Your task to perform on an android device: toggle notification dots Image 0: 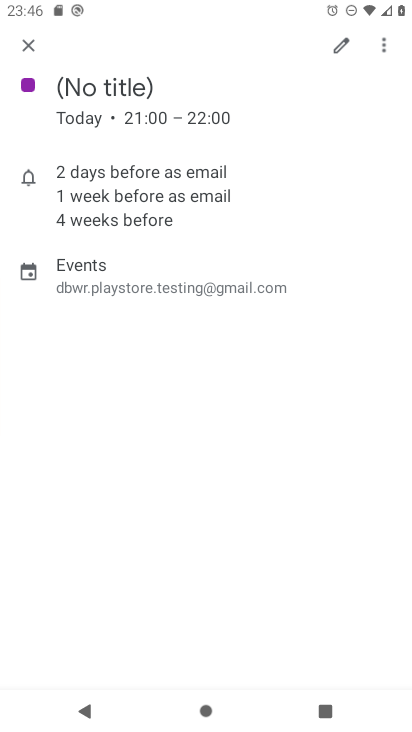
Step 0: press home button
Your task to perform on an android device: toggle notification dots Image 1: 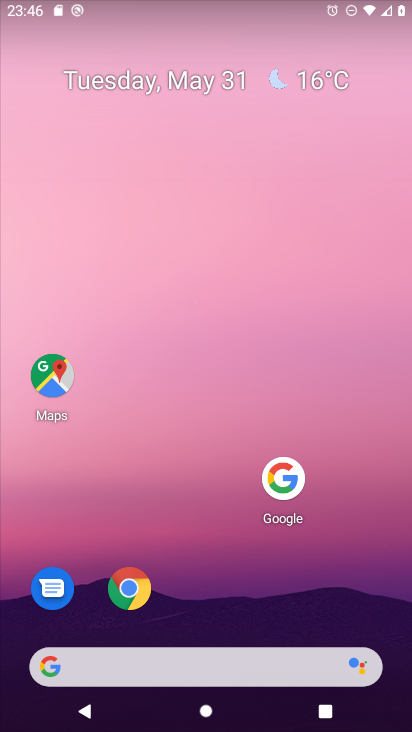
Step 1: drag from (194, 662) to (261, 120)
Your task to perform on an android device: toggle notification dots Image 2: 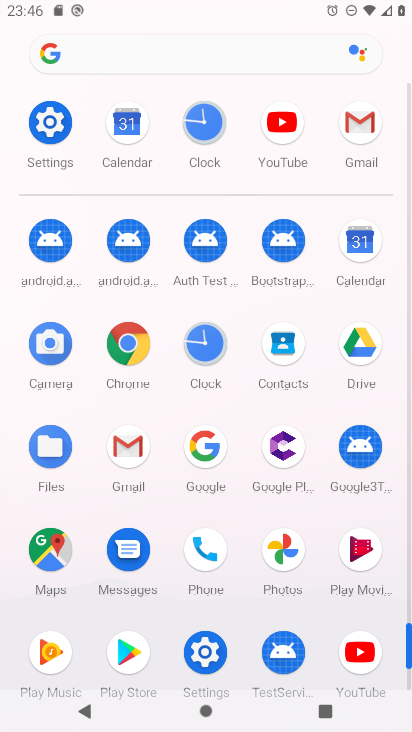
Step 2: click (42, 127)
Your task to perform on an android device: toggle notification dots Image 3: 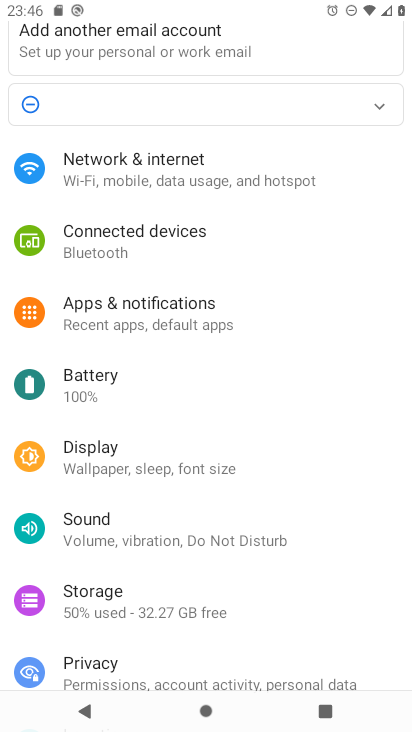
Step 3: click (158, 307)
Your task to perform on an android device: toggle notification dots Image 4: 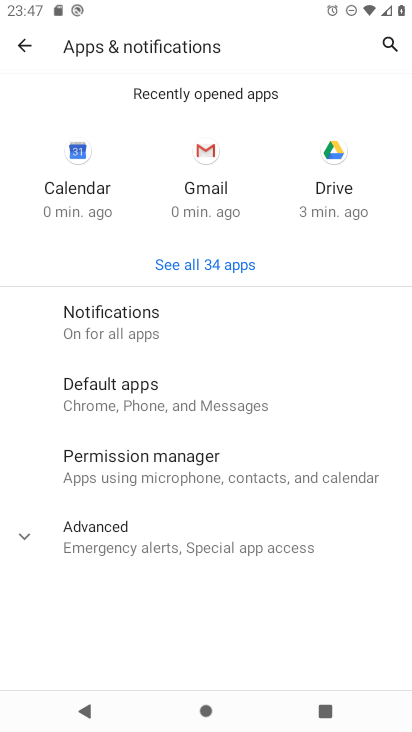
Step 4: click (132, 321)
Your task to perform on an android device: toggle notification dots Image 5: 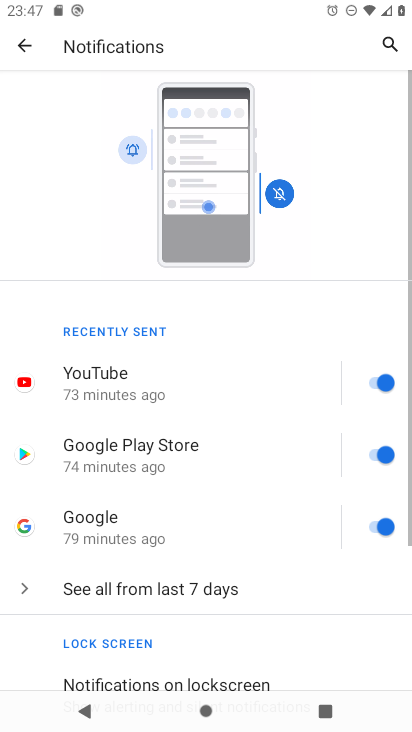
Step 5: drag from (283, 632) to (284, 177)
Your task to perform on an android device: toggle notification dots Image 6: 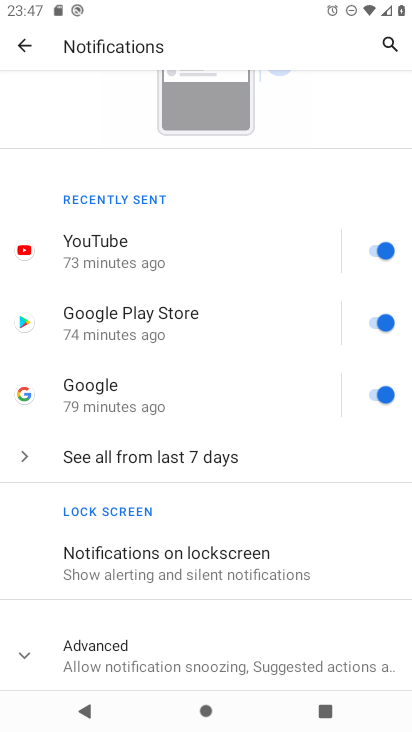
Step 6: click (180, 640)
Your task to perform on an android device: toggle notification dots Image 7: 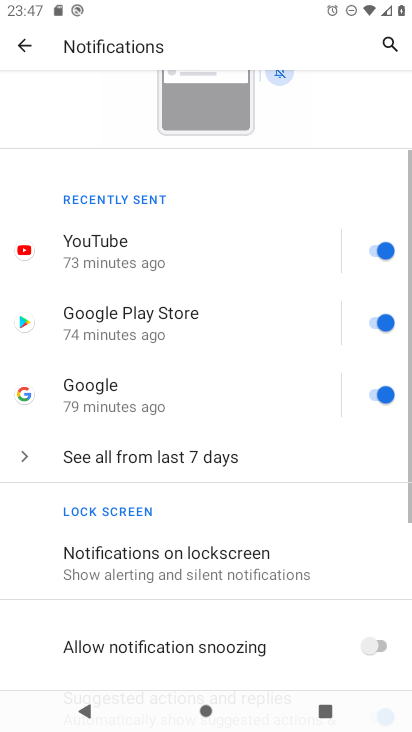
Step 7: drag from (204, 621) to (278, 145)
Your task to perform on an android device: toggle notification dots Image 8: 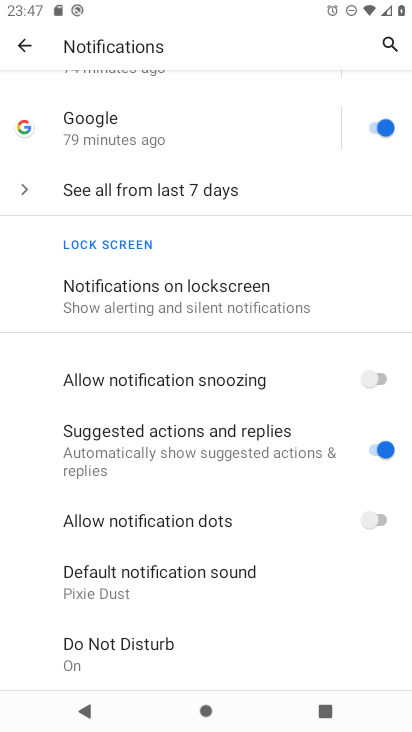
Step 8: click (379, 522)
Your task to perform on an android device: toggle notification dots Image 9: 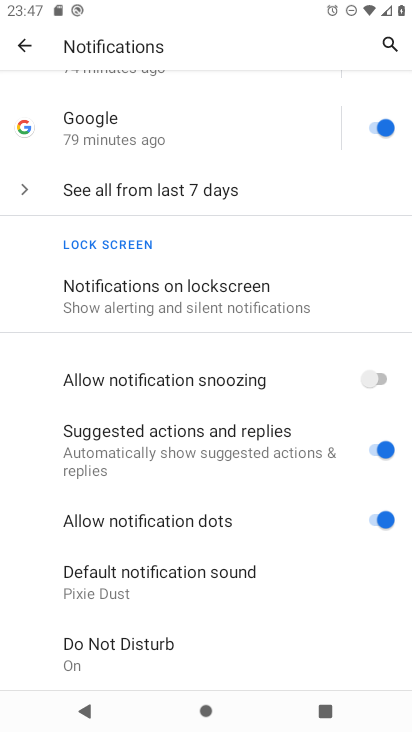
Step 9: task complete